Your task to perform on an android device: Open settings on Google Maps Image 0: 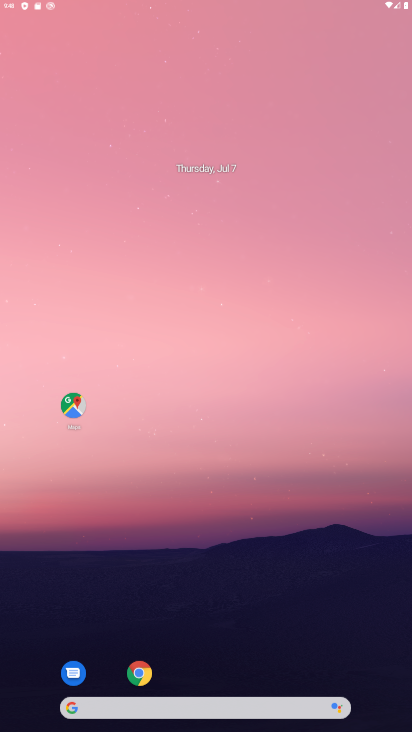
Step 0: press home button
Your task to perform on an android device: Open settings on Google Maps Image 1: 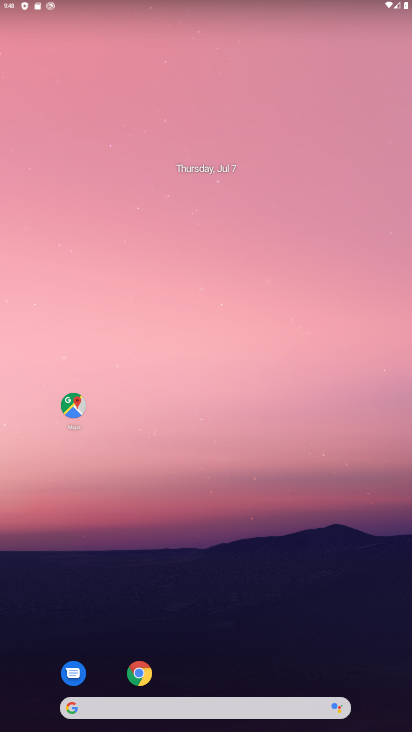
Step 1: press home button
Your task to perform on an android device: Open settings on Google Maps Image 2: 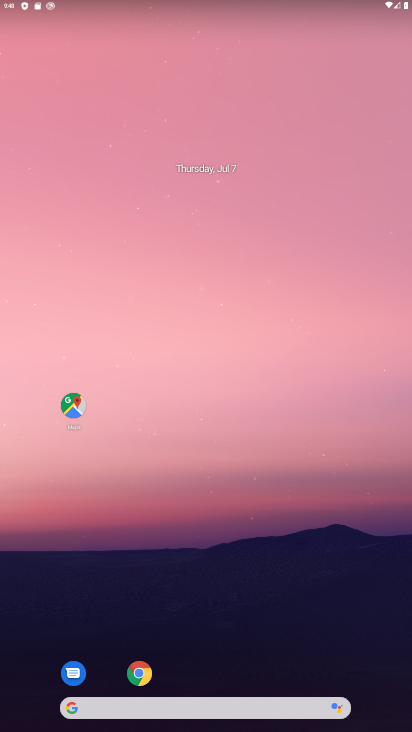
Step 2: drag from (244, 726) to (279, 255)
Your task to perform on an android device: Open settings on Google Maps Image 3: 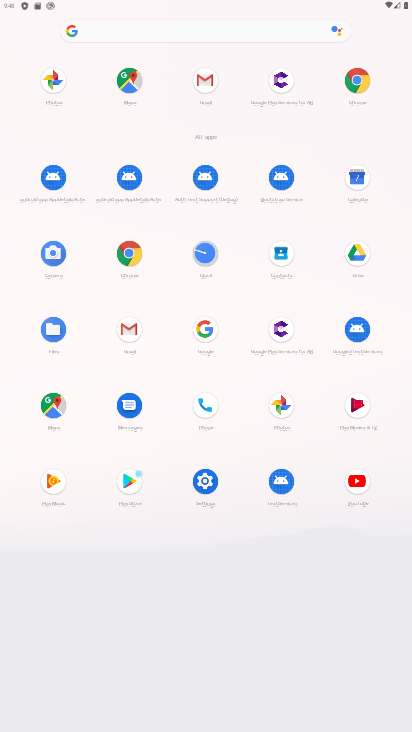
Step 3: click (42, 421)
Your task to perform on an android device: Open settings on Google Maps Image 4: 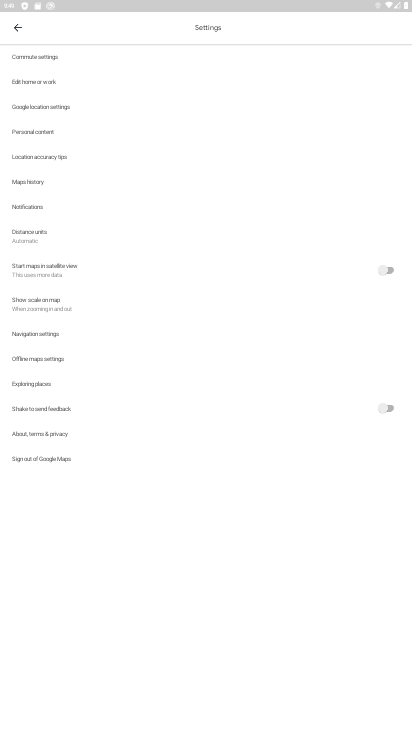
Step 4: task complete